Your task to perform on an android device: Open CNN.com Image 0: 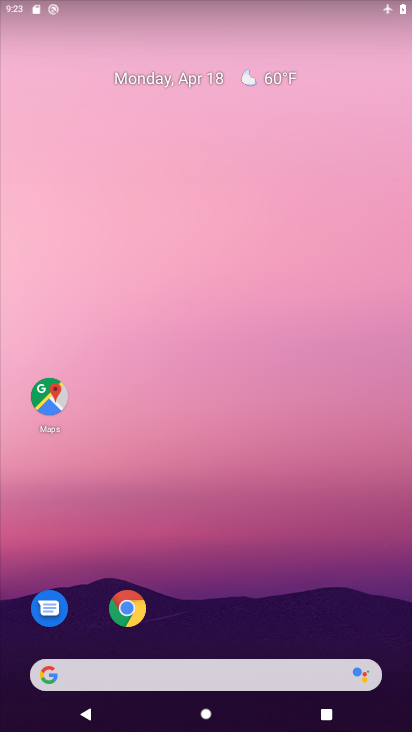
Step 0: drag from (336, 577) to (335, 131)
Your task to perform on an android device: Open CNN.com Image 1: 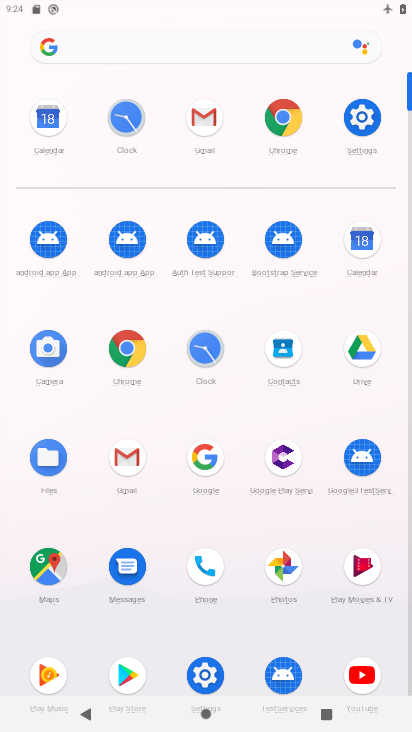
Step 1: click (134, 338)
Your task to perform on an android device: Open CNN.com Image 2: 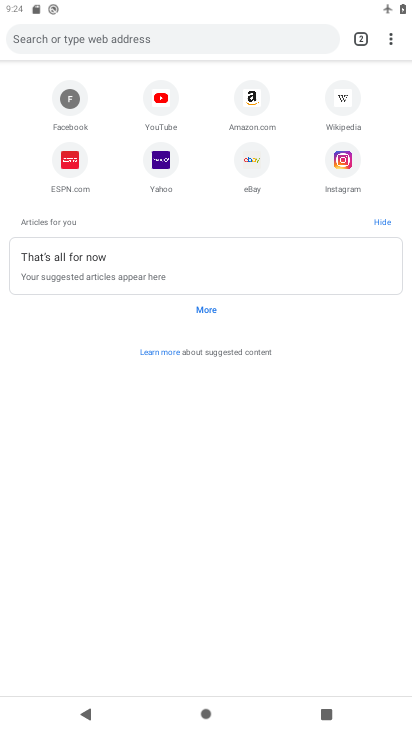
Step 2: click (188, 42)
Your task to perform on an android device: Open CNN.com Image 3: 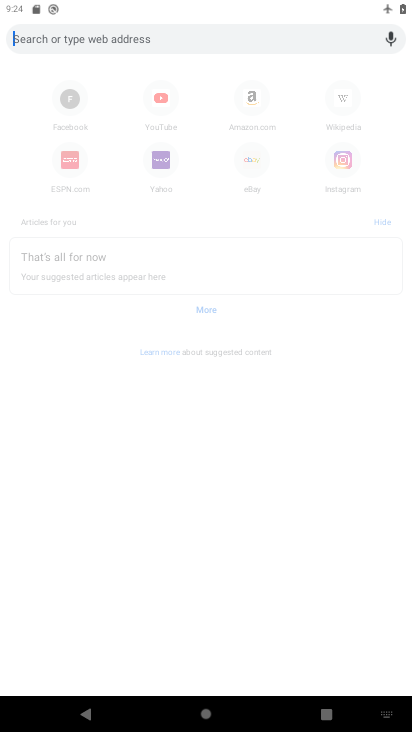
Step 3: type "cnn.com"
Your task to perform on an android device: Open CNN.com Image 4: 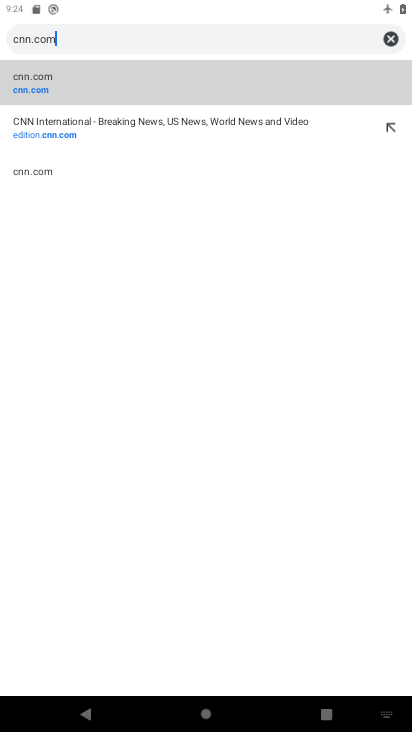
Step 4: click (64, 99)
Your task to perform on an android device: Open CNN.com Image 5: 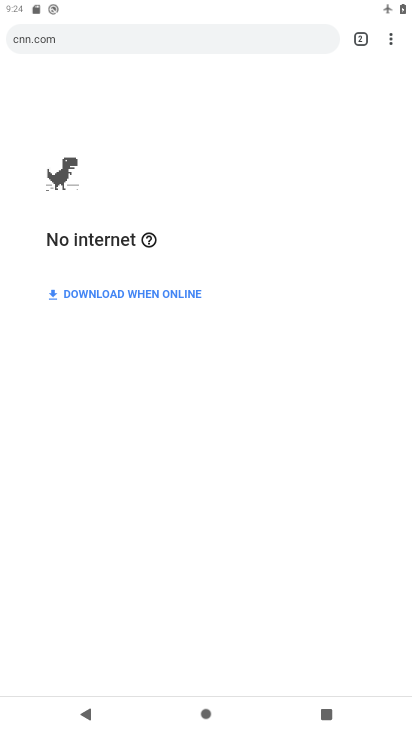
Step 5: task complete